Your task to perform on an android device: What's the weather going to be this weekend? Image 0: 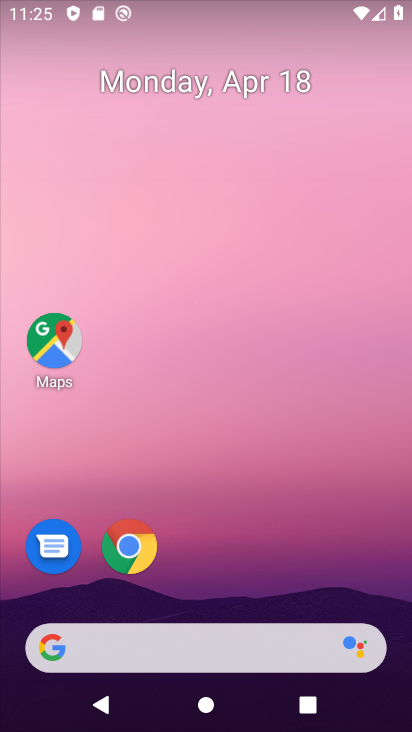
Step 0: click (130, 537)
Your task to perform on an android device: What's the weather going to be this weekend? Image 1: 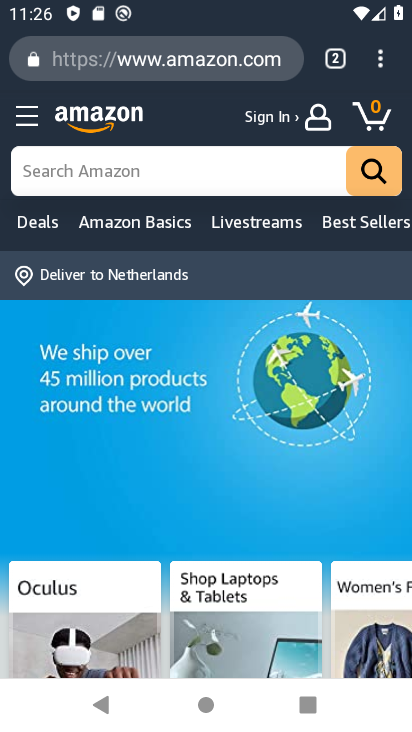
Step 1: click (158, 61)
Your task to perform on an android device: What's the weather going to be this weekend? Image 2: 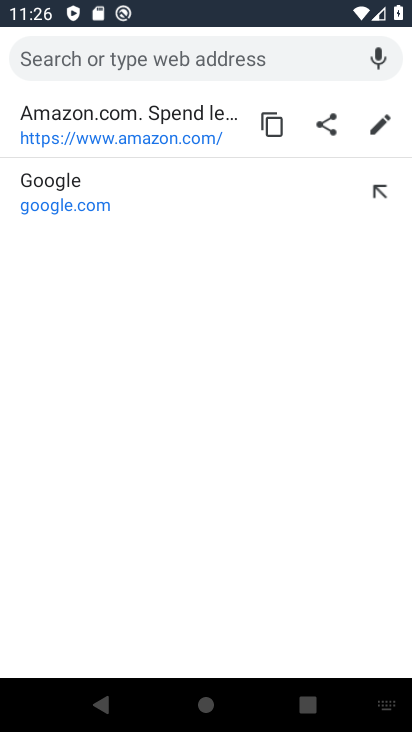
Step 2: type "weather"
Your task to perform on an android device: What's the weather going to be this weekend? Image 3: 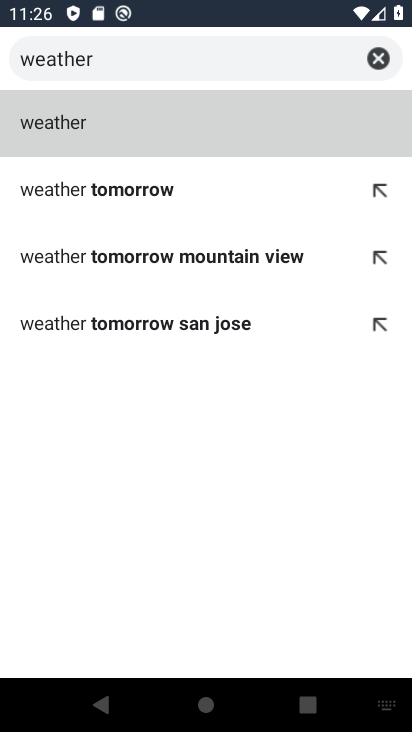
Step 3: click (40, 176)
Your task to perform on an android device: What's the weather going to be this weekend? Image 4: 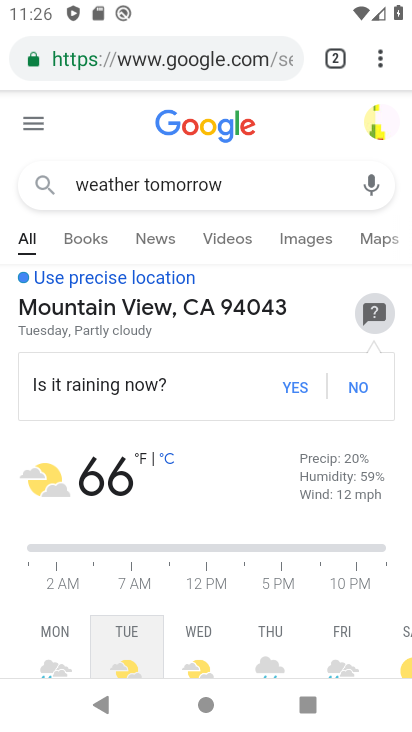
Step 4: task complete